Your task to perform on an android device: open app "PlayWell" (install if not already installed) Image 0: 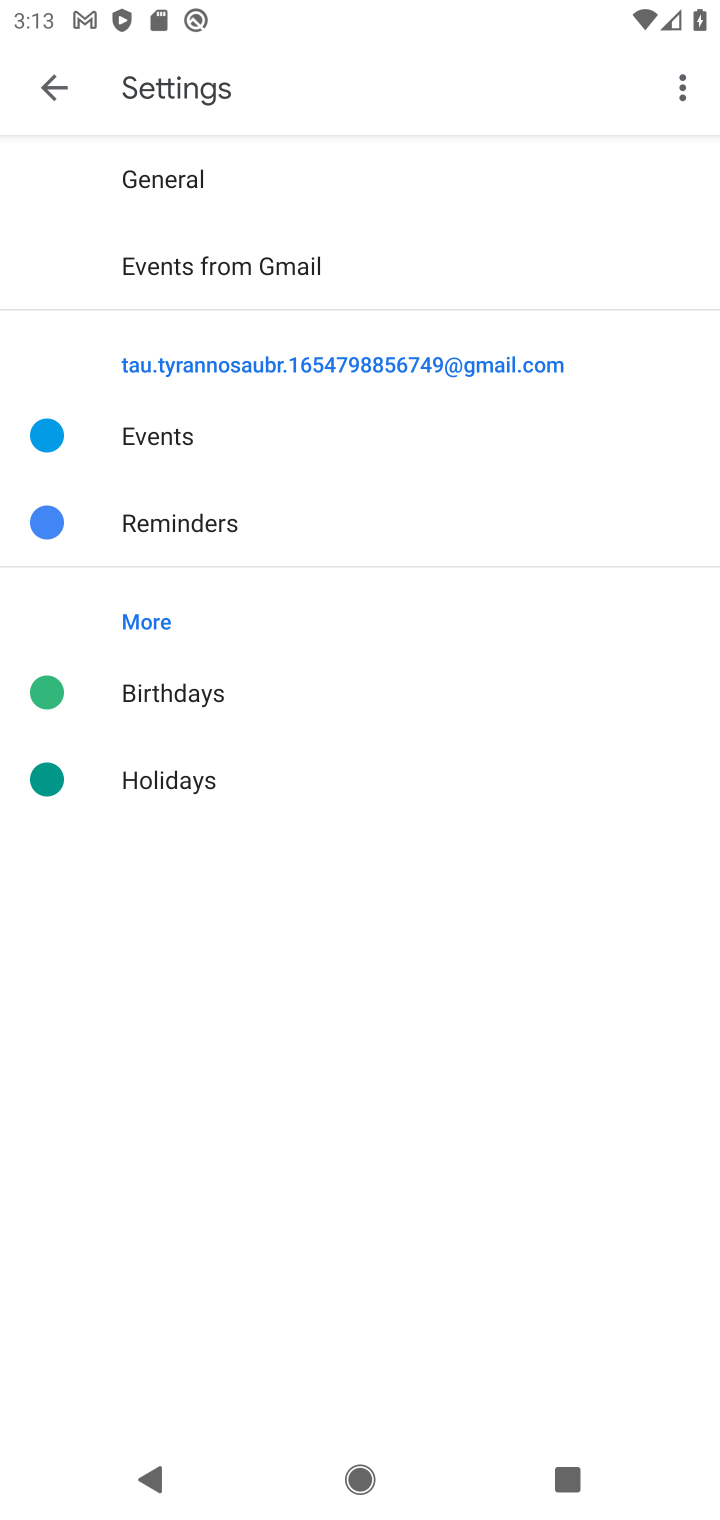
Step 0: press home button
Your task to perform on an android device: open app "PlayWell" (install if not already installed) Image 1: 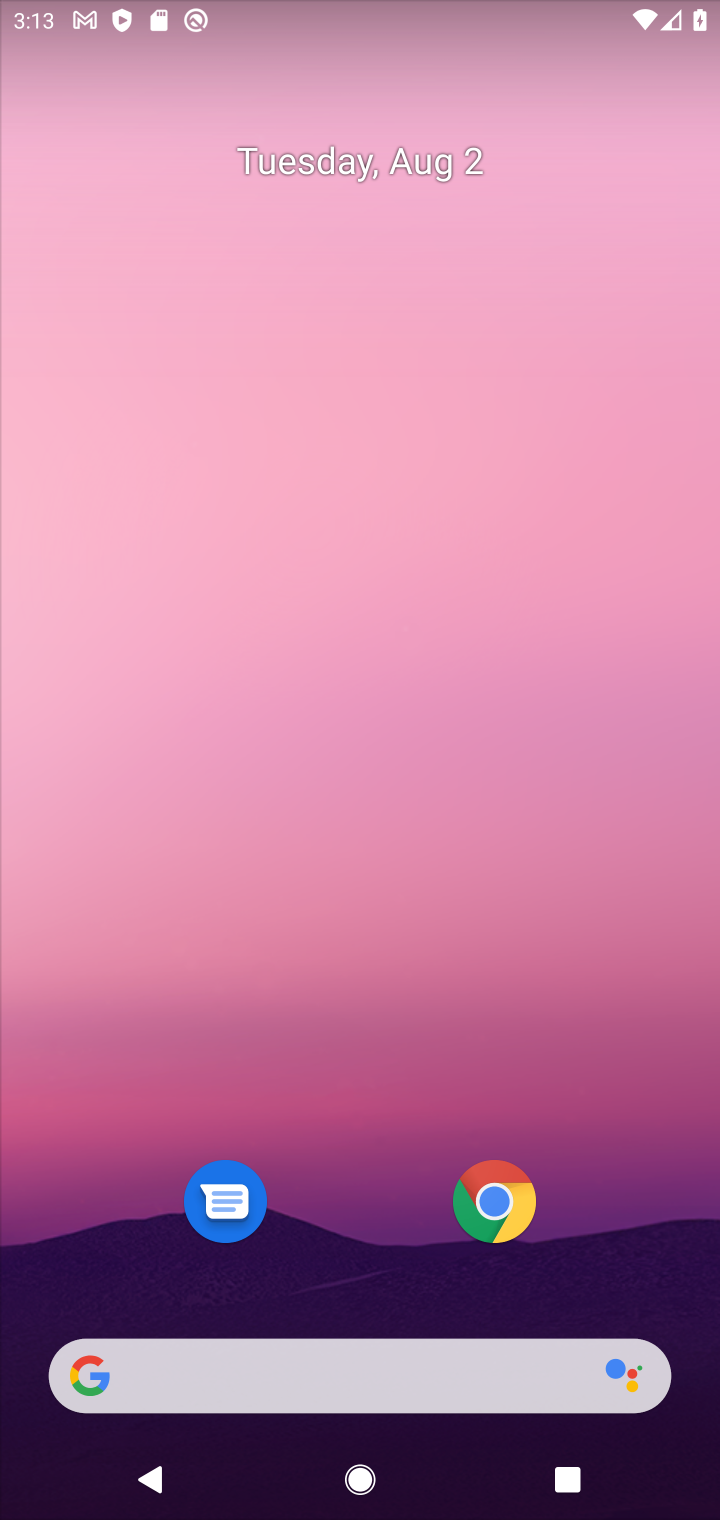
Step 1: drag from (391, 1260) to (448, 44)
Your task to perform on an android device: open app "PlayWell" (install if not already installed) Image 2: 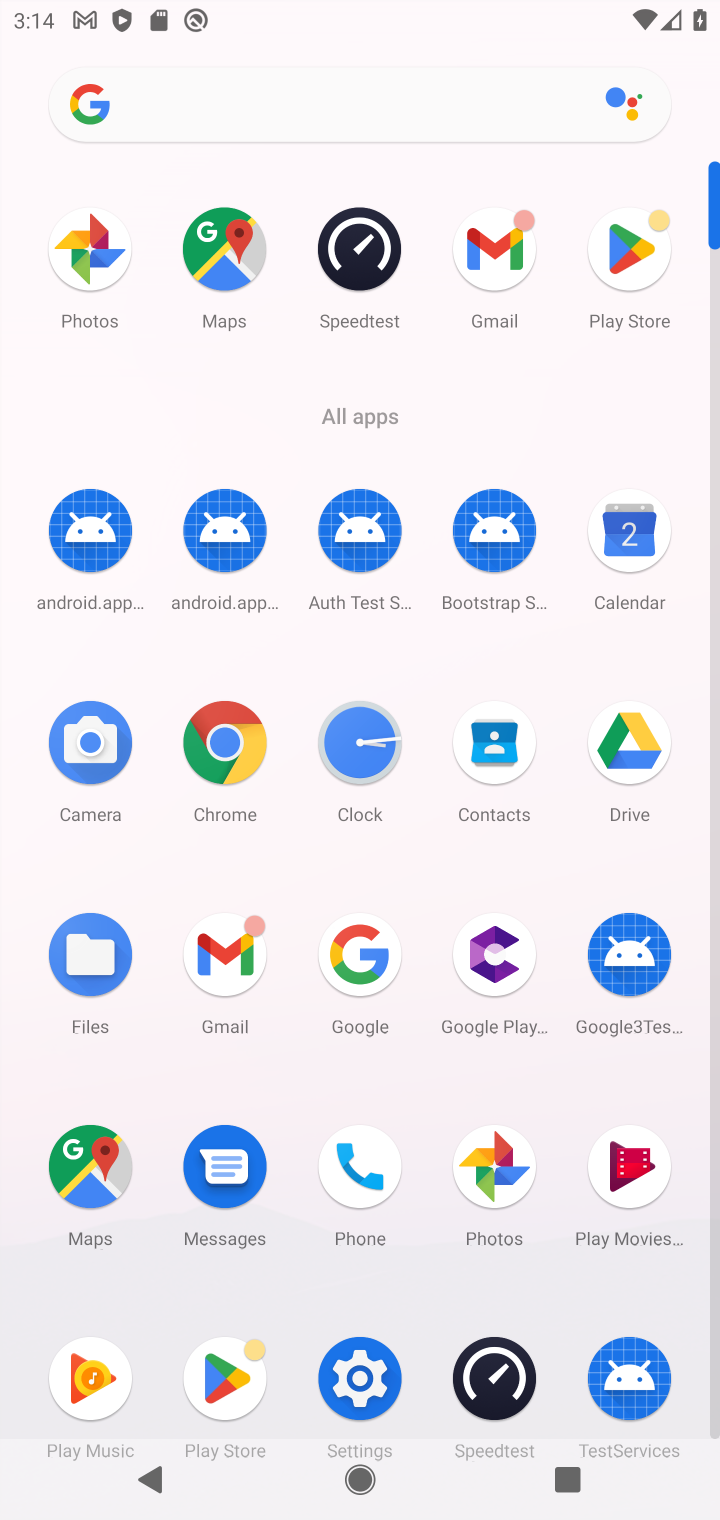
Step 2: click (626, 239)
Your task to perform on an android device: open app "PlayWell" (install if not already installed) Image 3: 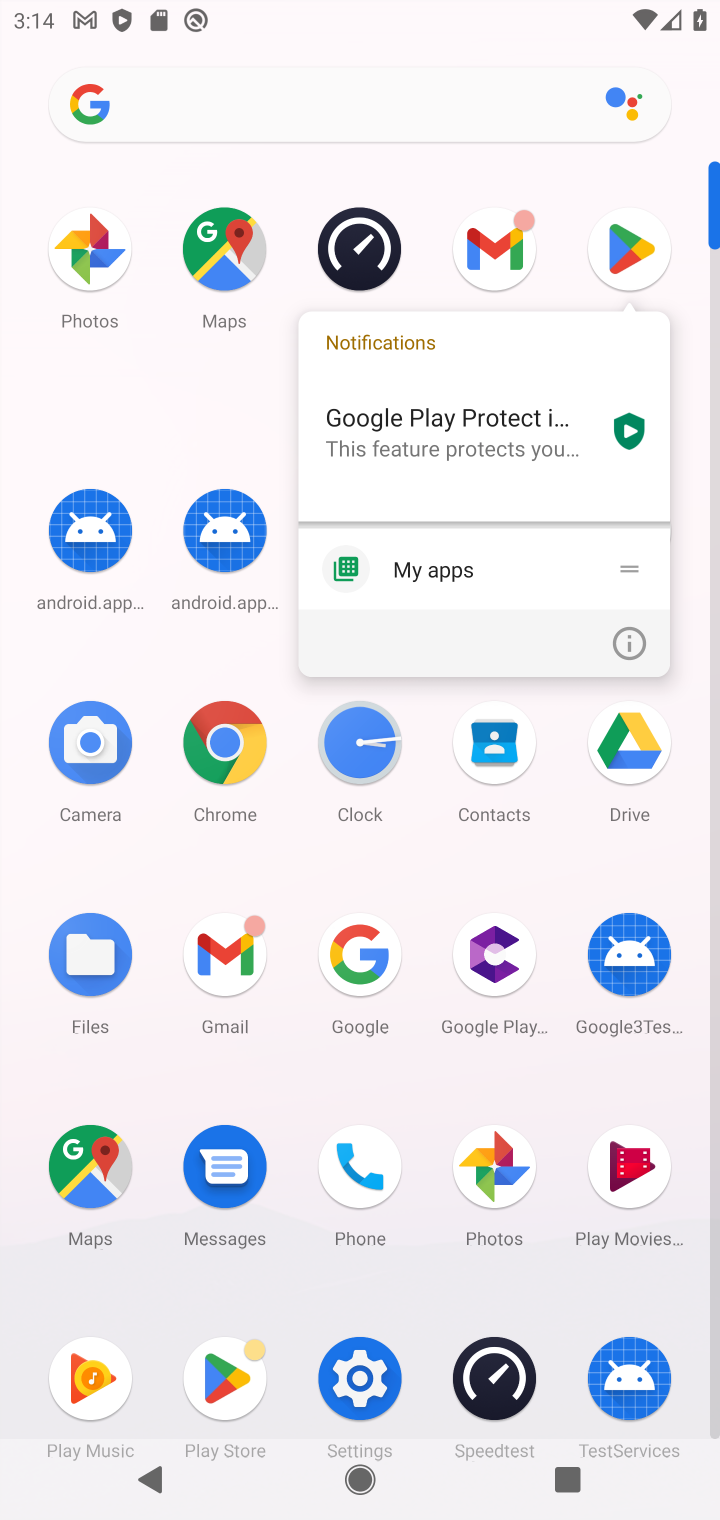
Step 3: click (633, 244)
Your task to perform on an android device: open app "PlayWell" (install if not already installed) Image 4: 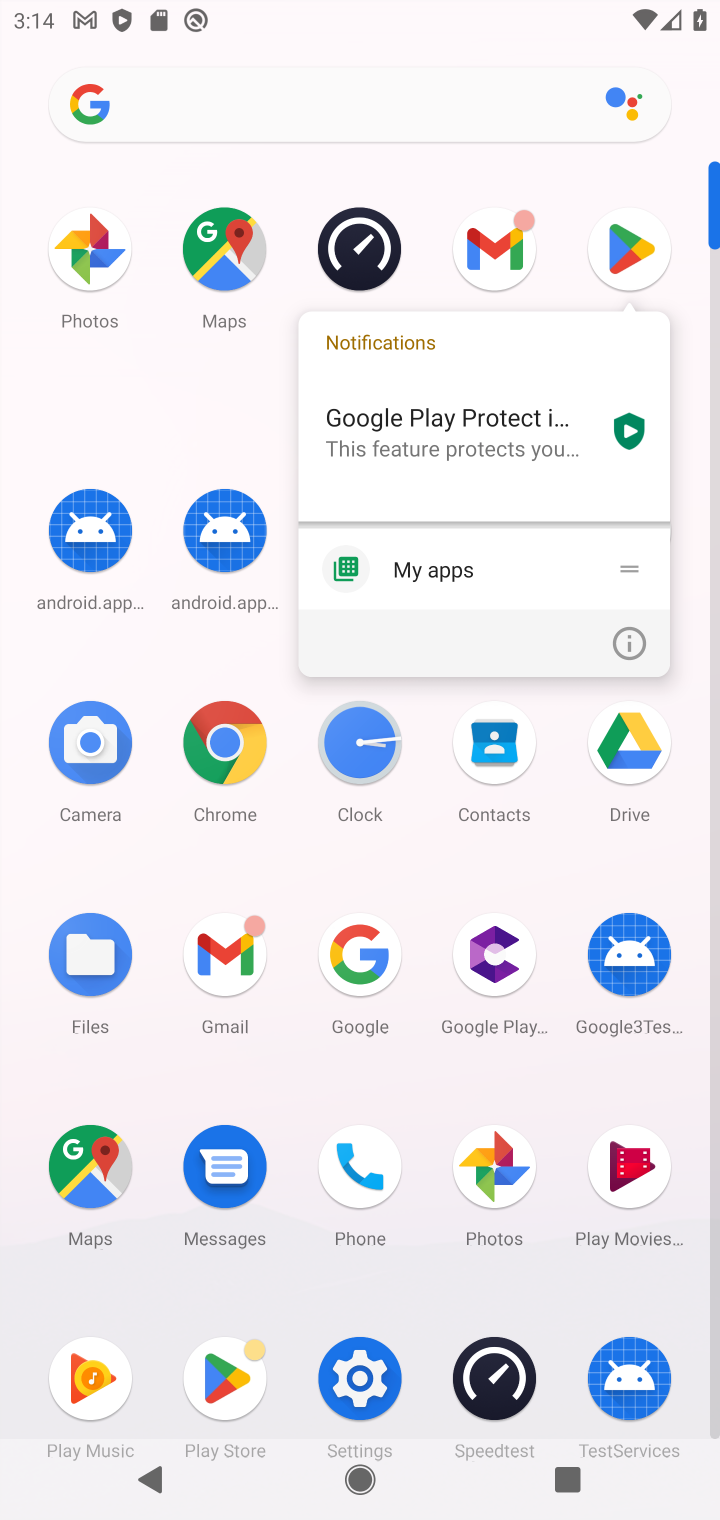
Step 4: click (637, 246)
Your task to perform on an android device: open app "PlayWell" (install if not already installed) Image 5: 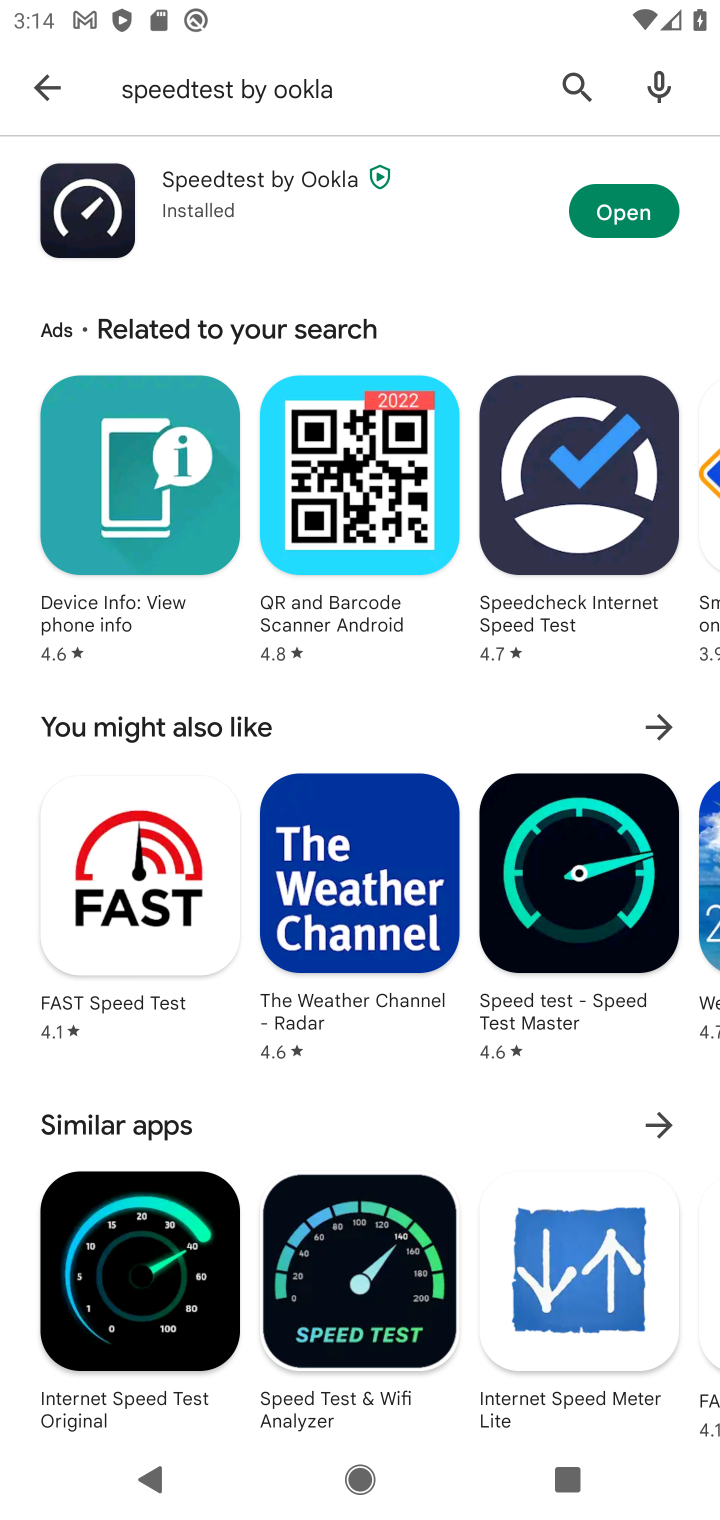
Step 5: click (566, 77)
Your task to perform on an android device: open app "PlayWell" (install if not already installed) Image 6: 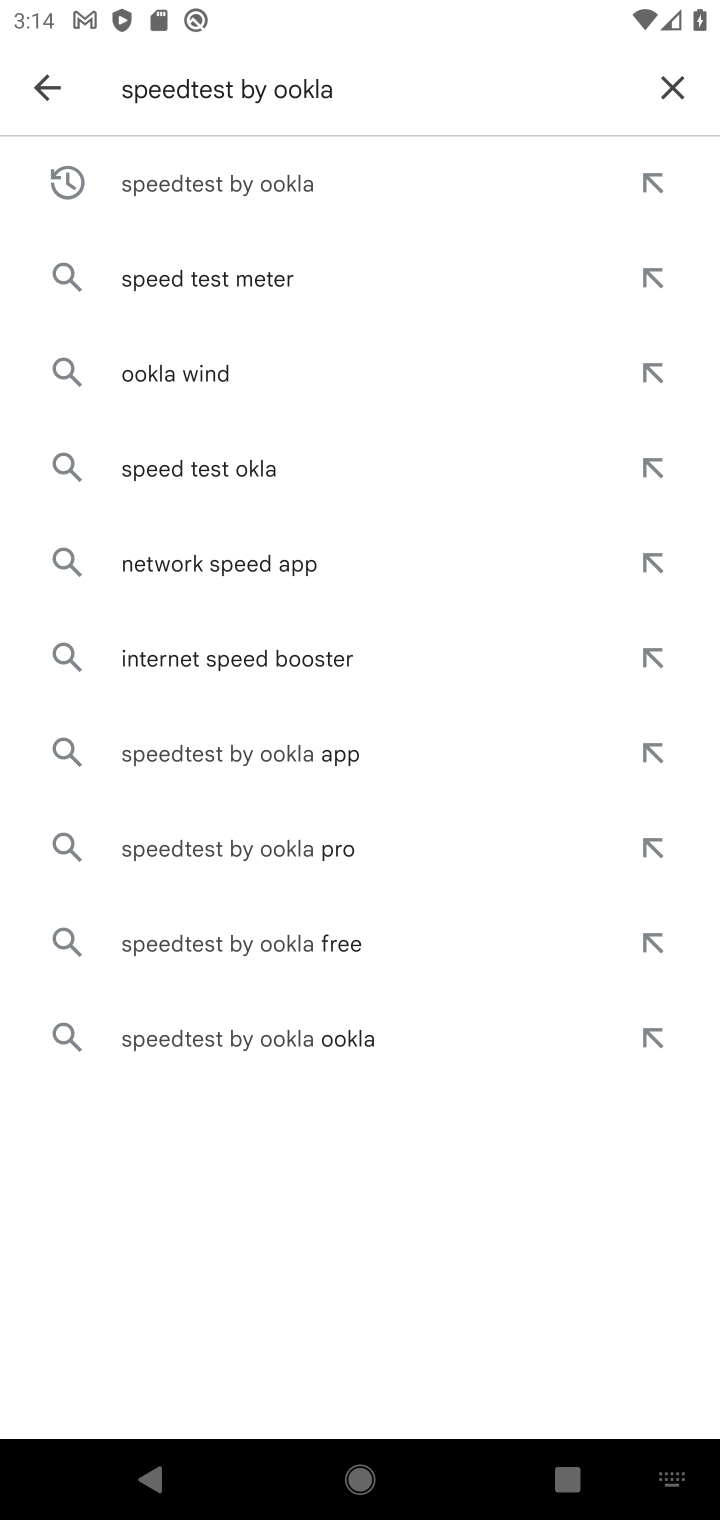
Step 6: click (684, 88)
Your task to perform on an android device: open app "PlayWell" (install if not already installed) Image 7: 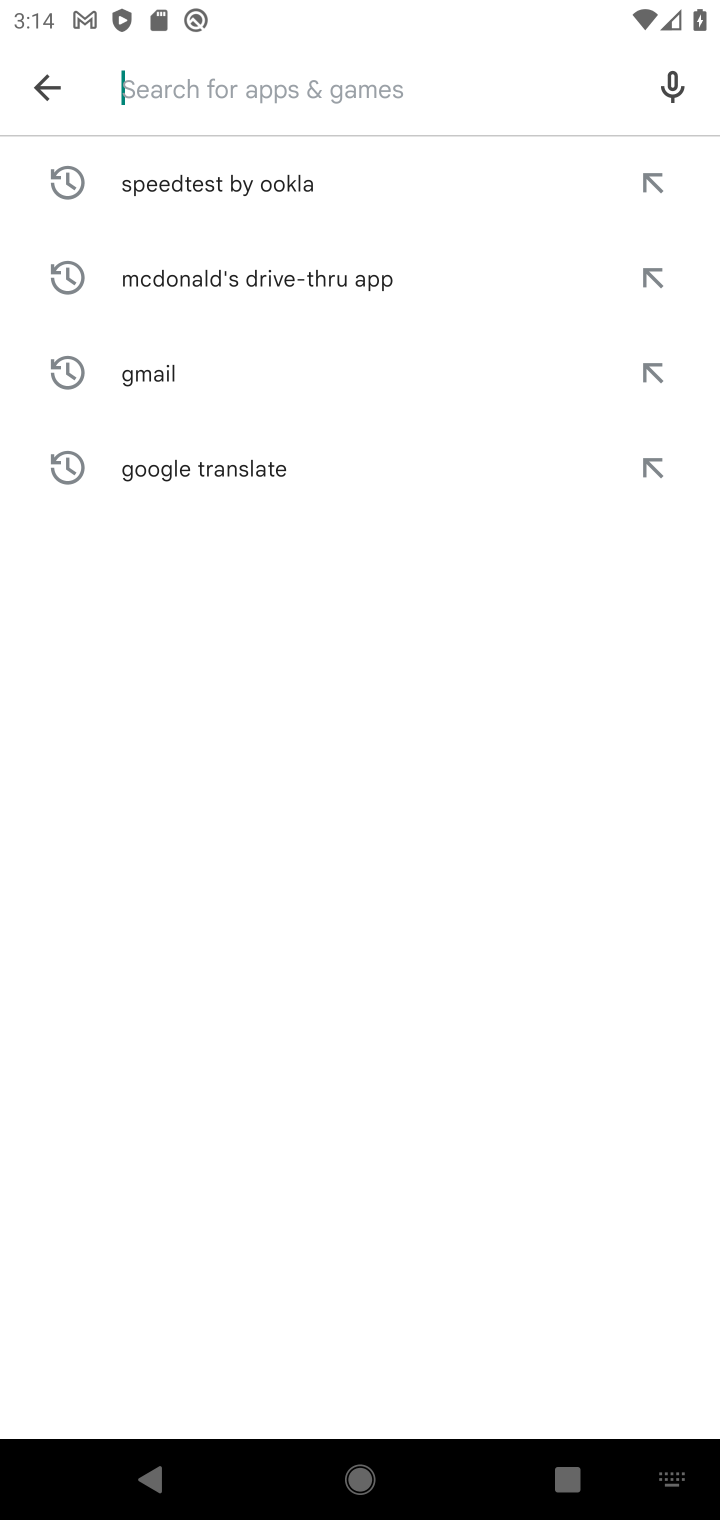
Step 7: type "PlayWell"
Your task to perform on an android device: open app "PlayWell" (install if not already installed) Image 8: 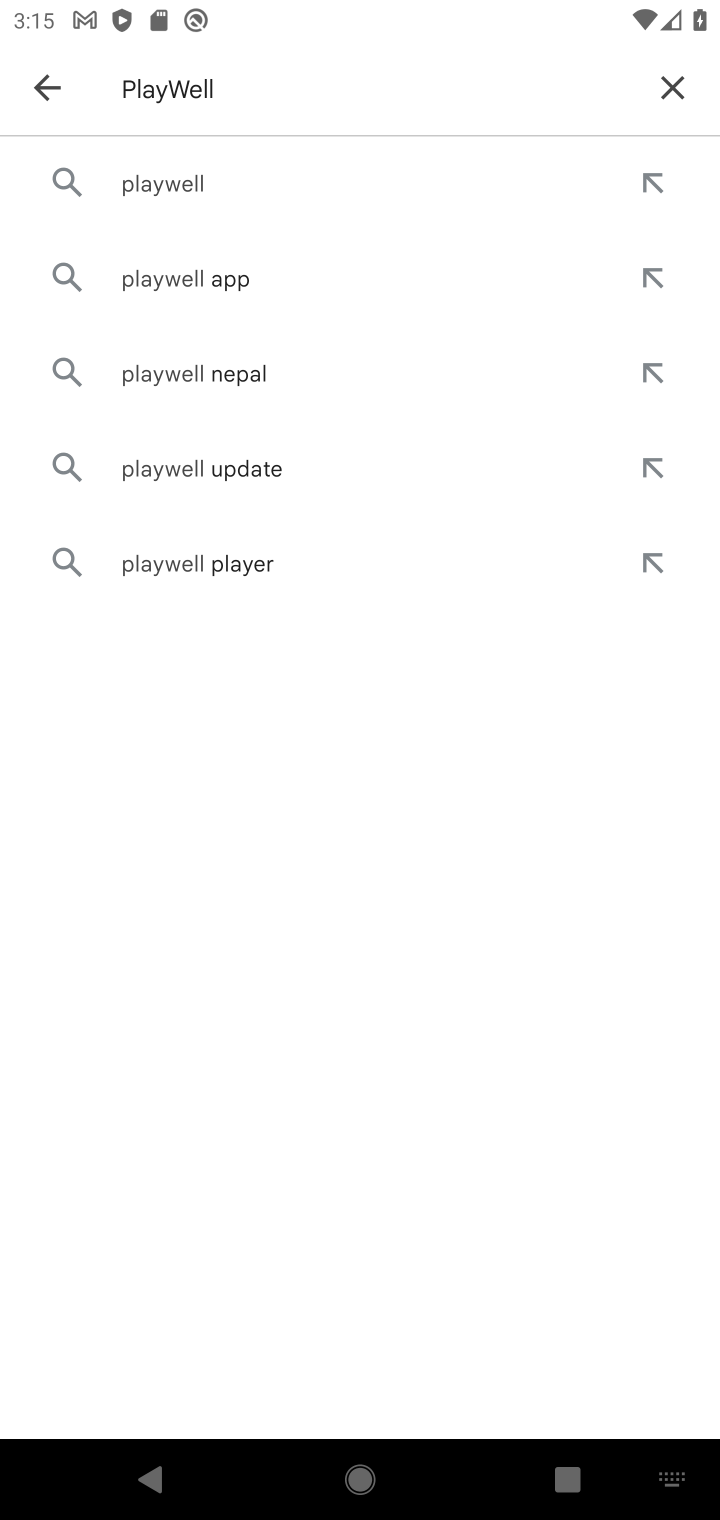
Step 8: click (153, 184)
Your task to perform on an android device: open app "PlayWell" (install if not already installed) Image 9: 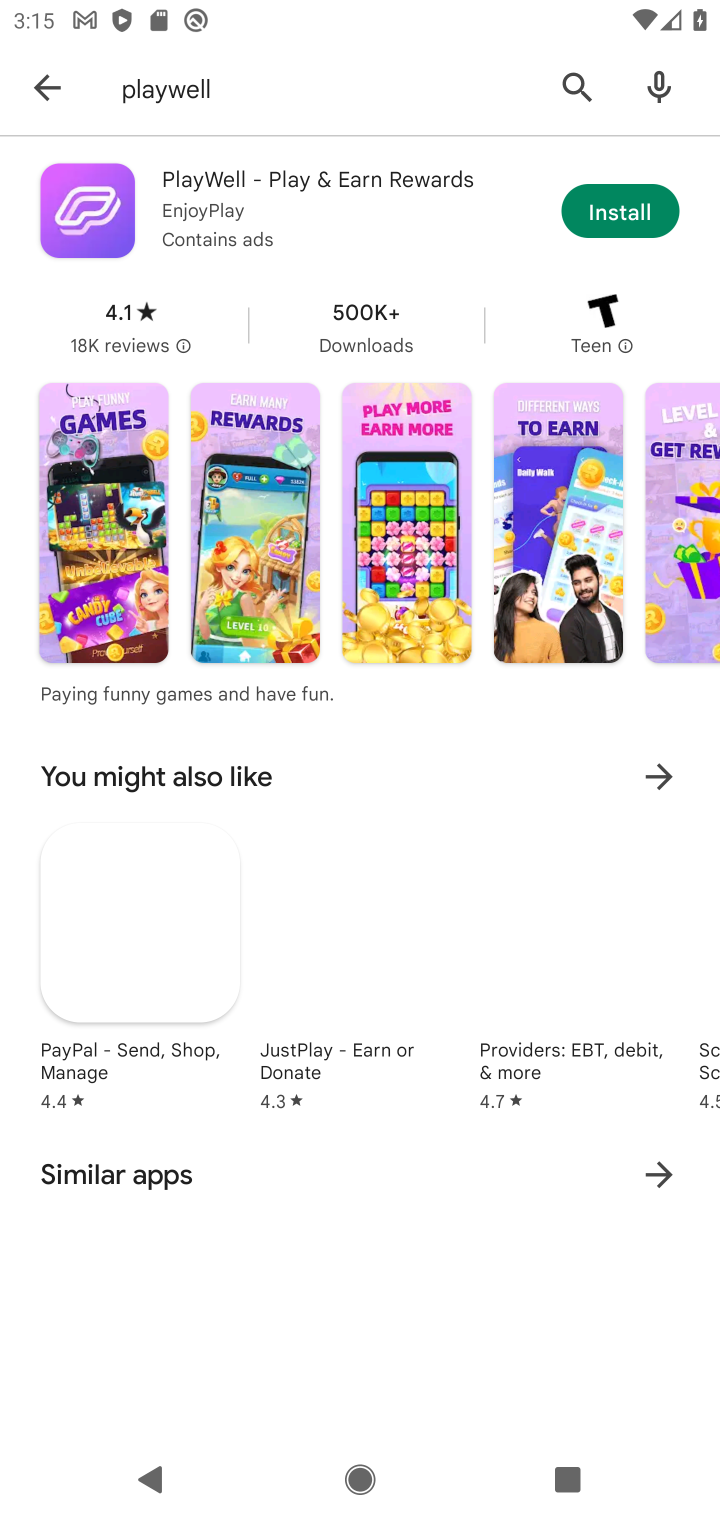
Step 9: click (634, 213)
Your task to perform on an android device: open app "PlayWell" (install if not already installed) Image 10: 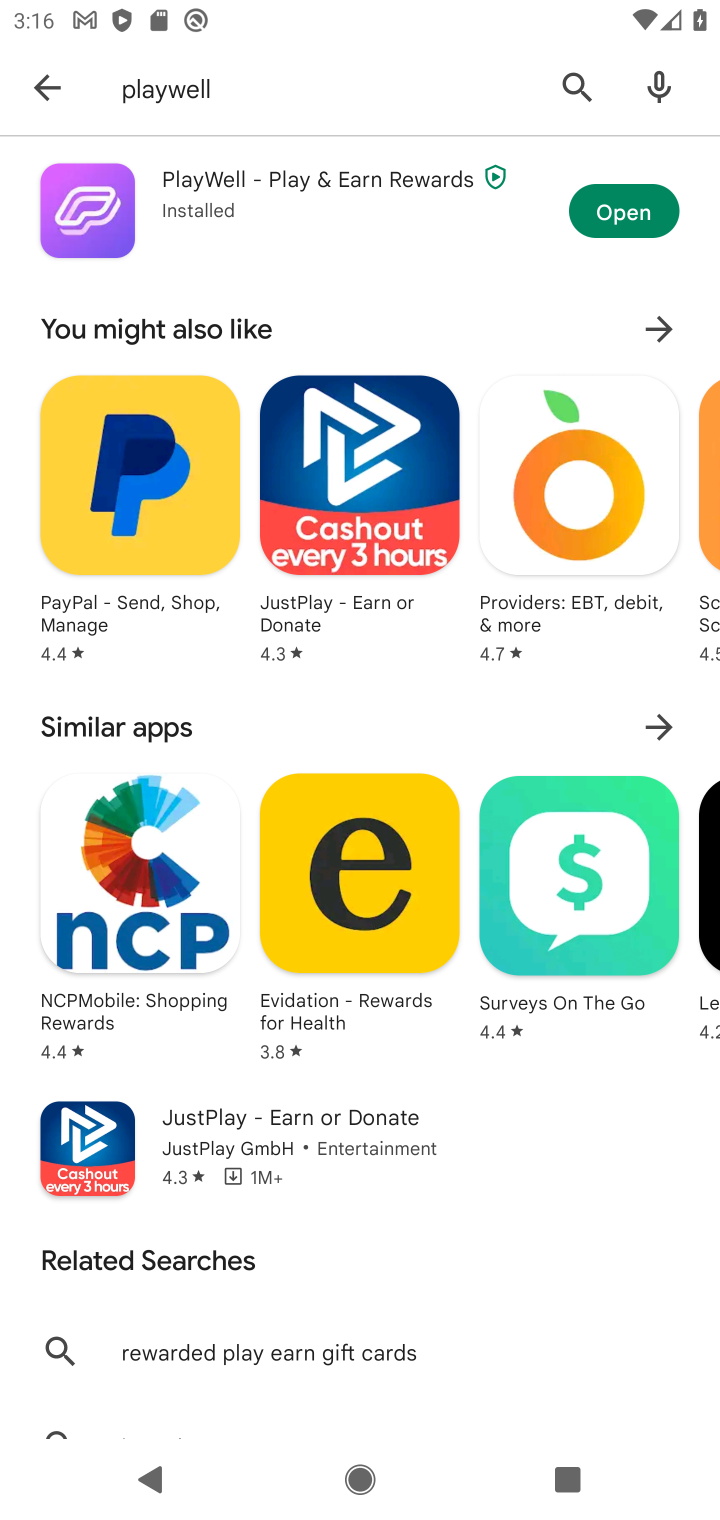
Step 10: click (615, 230)
Your task to perform on an android device: open app "PlayWell" (install if not already installed) Image 11: 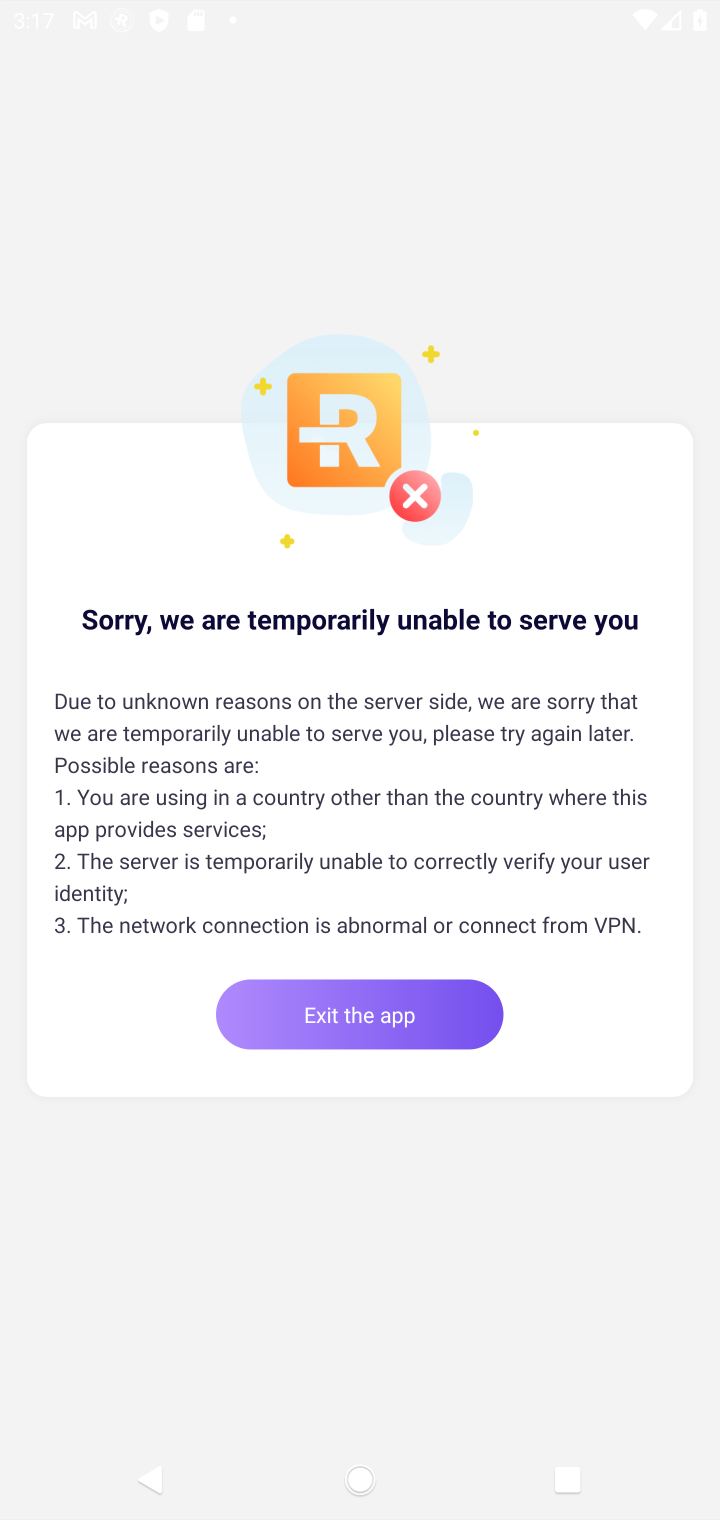
Step 11: click (366, 1015)
Your task to perform on an android device: open app "PlayWell" (install if not already installed) Image 12: 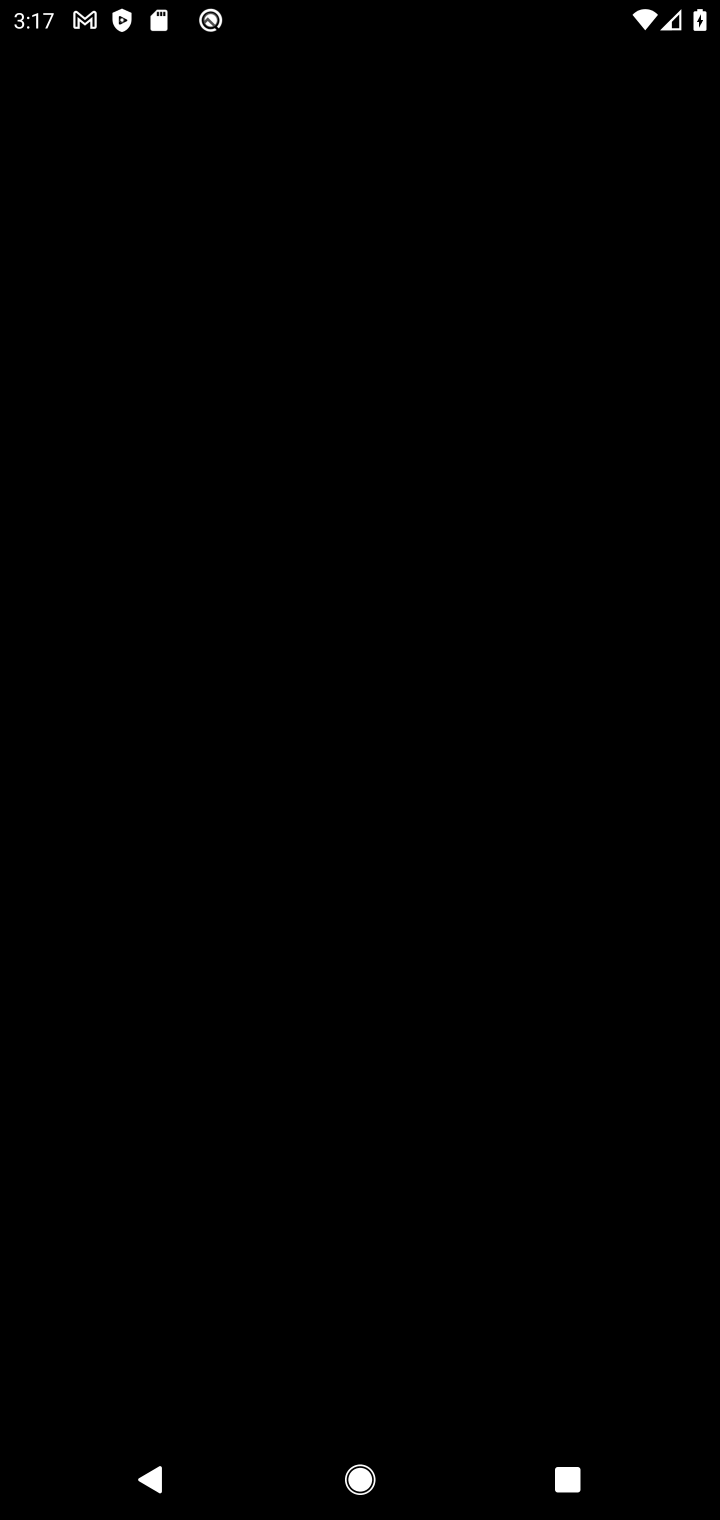
Step 12: task complete